Your task to perform on an android device: Is it going to rain today? Image 0: 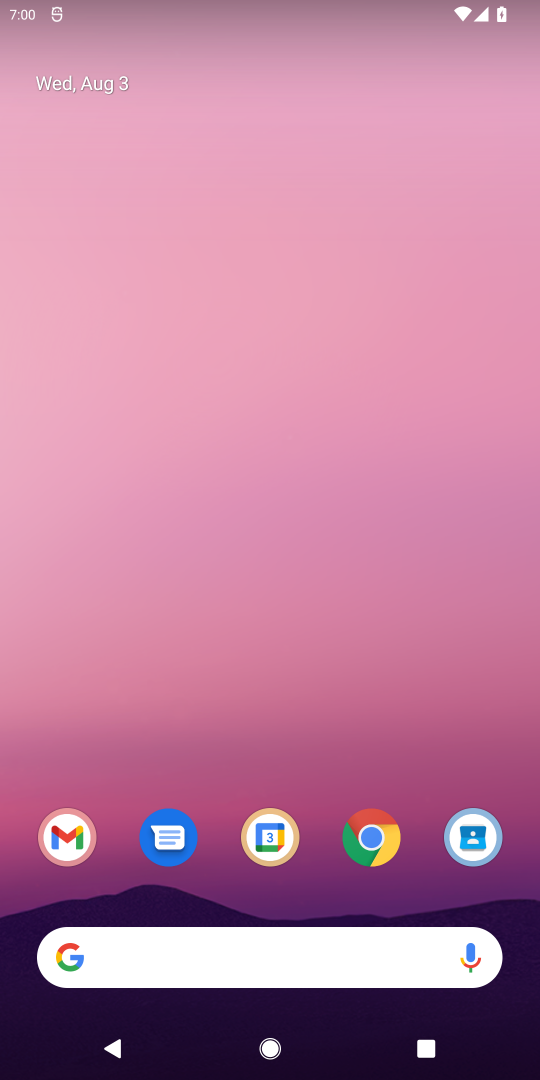
Step 0: press home button
Your task to perform on an android device: Is it going to rain today? Image 1: 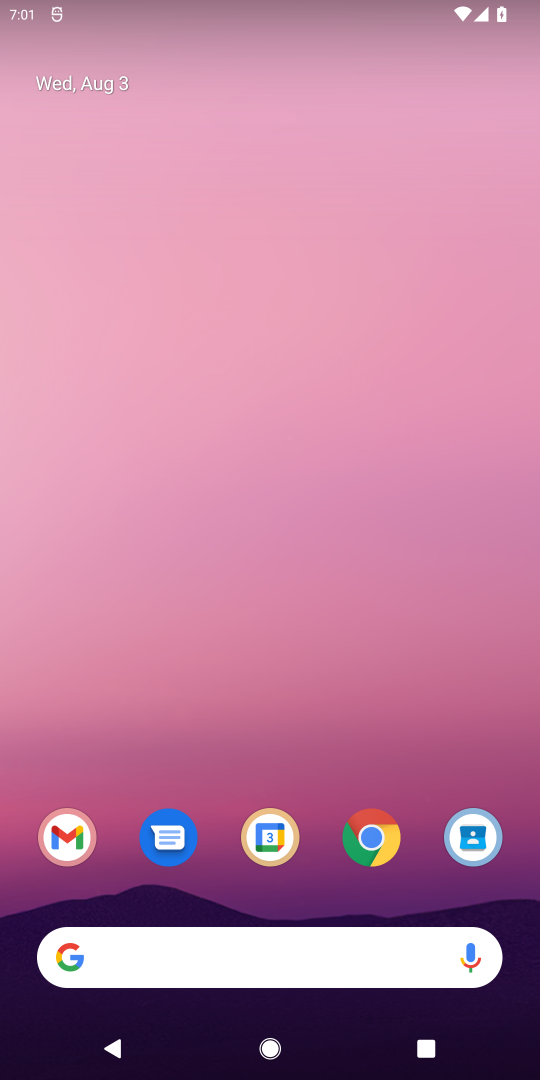
Step 1: click (65, 965)
Your task to perform on an android device: Is it going to rain today? Image 2: 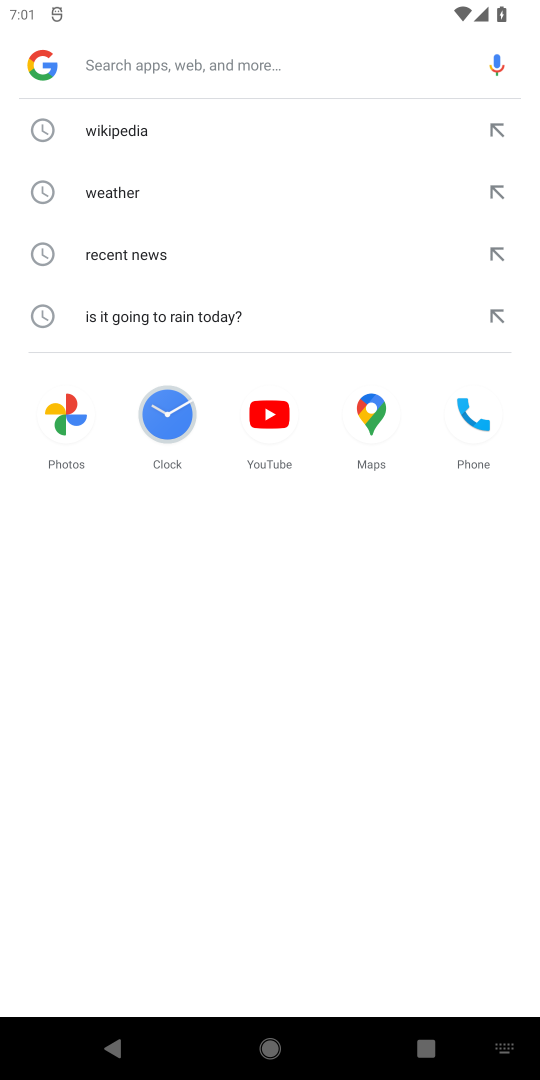
Step 2: type "Is it going to rain today?"
Your task to perform on an android device: Is it going to rain today? Image 3: 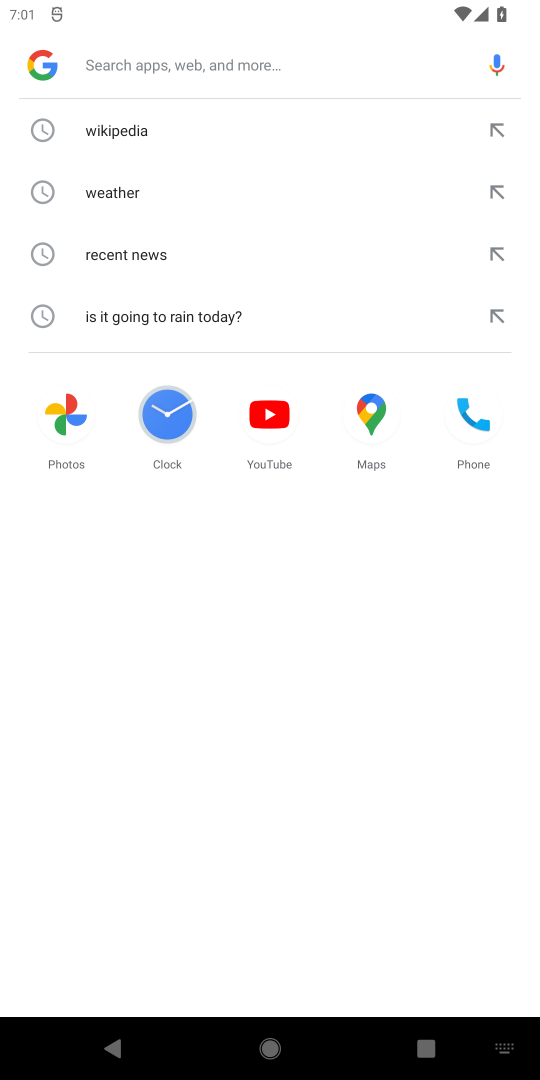
Step 3: click (126, 53)
Your task to perform on an android device: Is it going to rain today? Image 4: 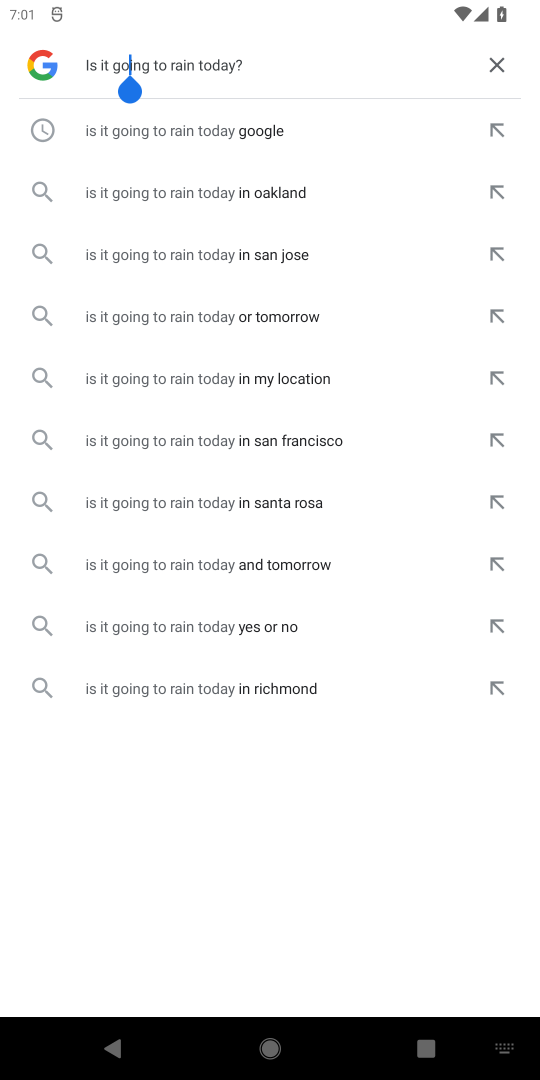
Step 4: press enter
Your task to perform on an android device: Is it going to rain today? Image 5: 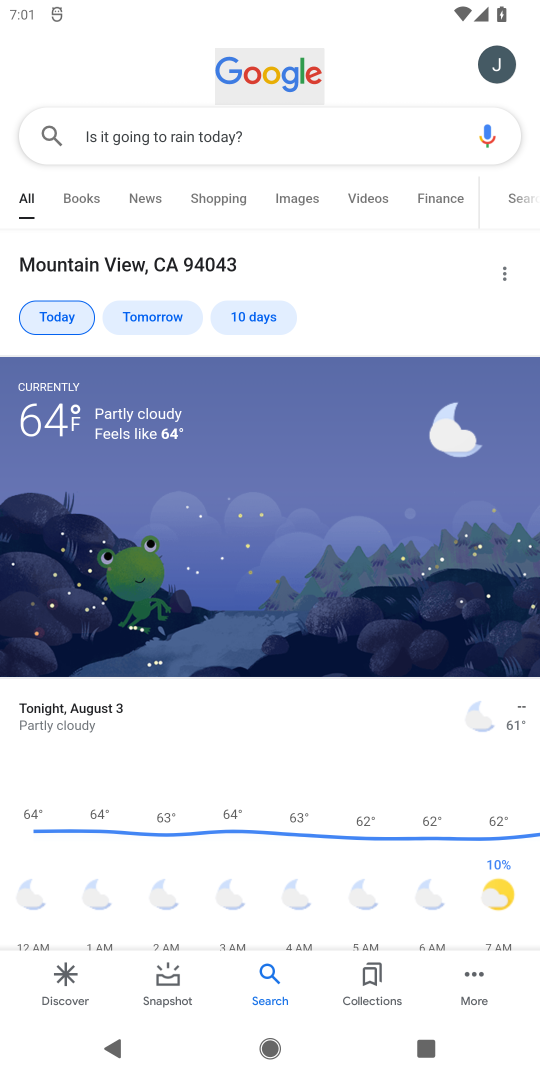
Step 5: task complete